Your task to perform on an android device: Open Chrome and go to settings Image 0: 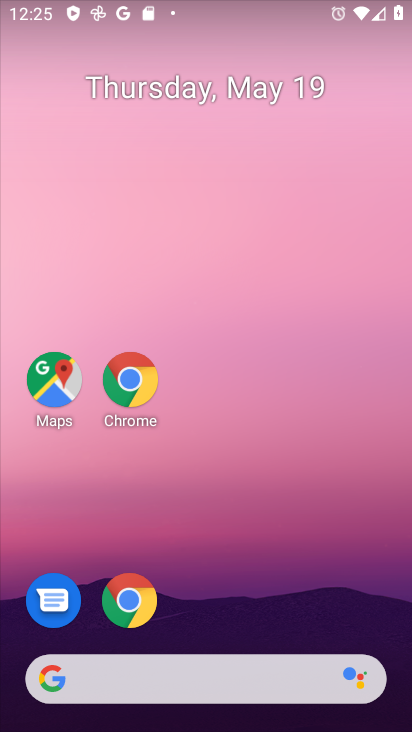
Step 0: drag from (301, 622) to (202, 132)
Your task to perform on an android device: Open Chrome and go to settings Image 1: 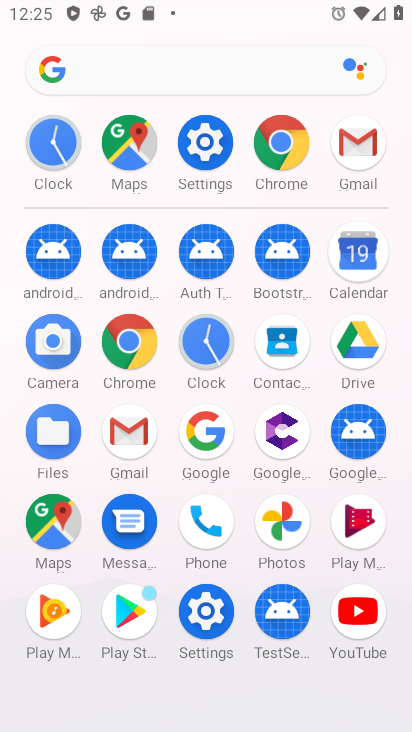
Step 1: click (197, 154)
Your task to perform on an android device: Open Chrome and go to settings Image 2: 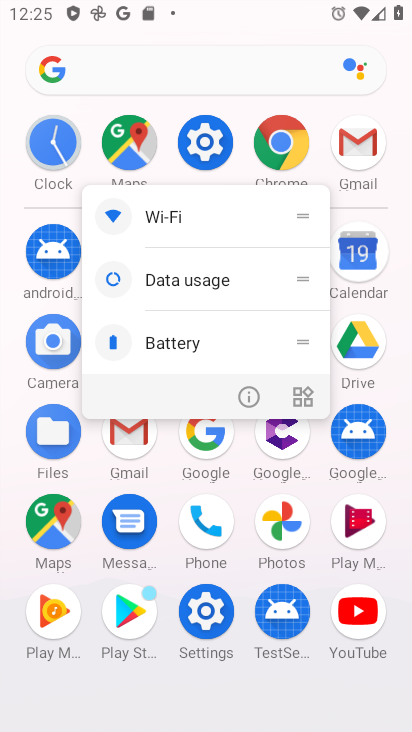
Step 2: click (208, 142)
Your task to perform on an android device: Open Chrome and go to settings Image 3: 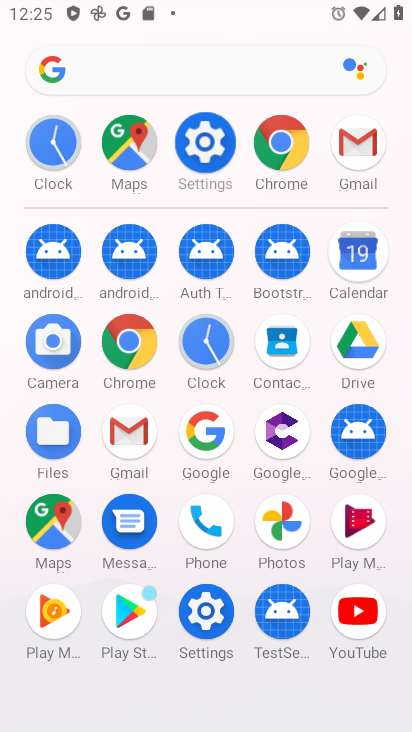
Step 3: click (208, 142)
Your task to perform on an android device: Open Chrome and go to settings Image 4: 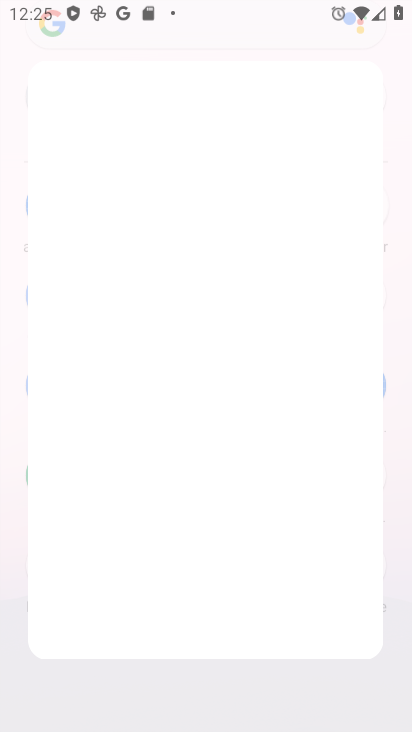
Step 4: click (209, 142)
Your task to perform on an android device: Open Chrome and go to settings Image 5: 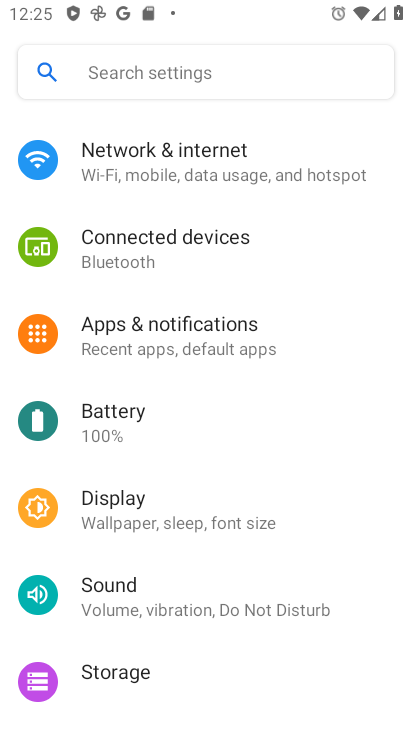
Step 5: click (210, 143)
Your task to perform on an android device: Open Chrome and go to settings Image 6: 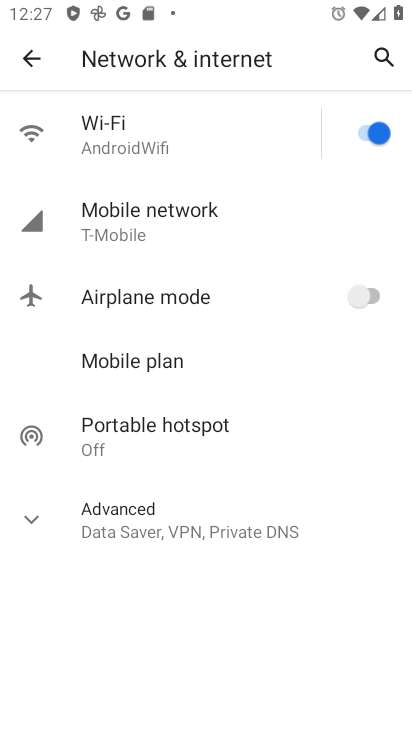
Step 6: click (26, 57)
Your task to perform on an android device: Open Chrome and go to settings Image 7: 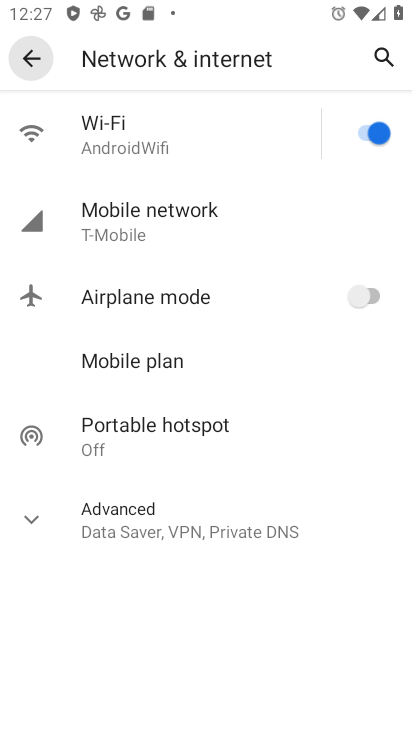
Step 7: click (26, 57)
Your task to perform on an android device: Open Chrome and go to settings Image 8: 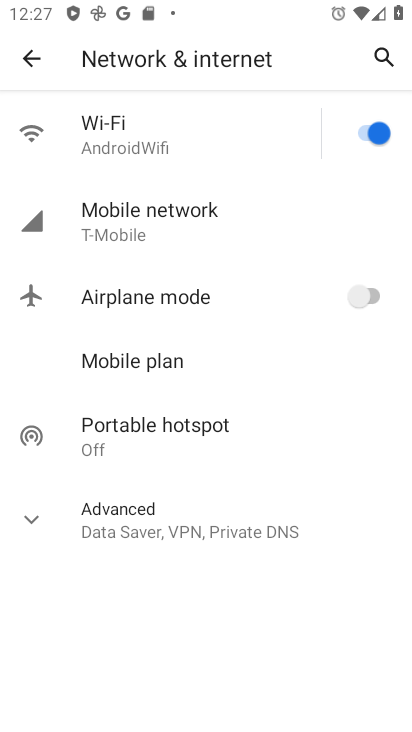
Step 8: click (24, 57)
Your task to perform on an android device: Open Chrome and go to settings Image 9: 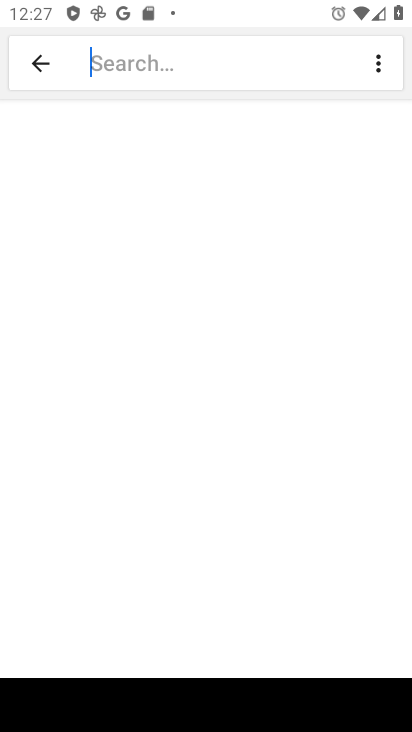
Step 9: click (38, 69)
Your task to perform on an android device: Open Chrome and go to settings Image 10: 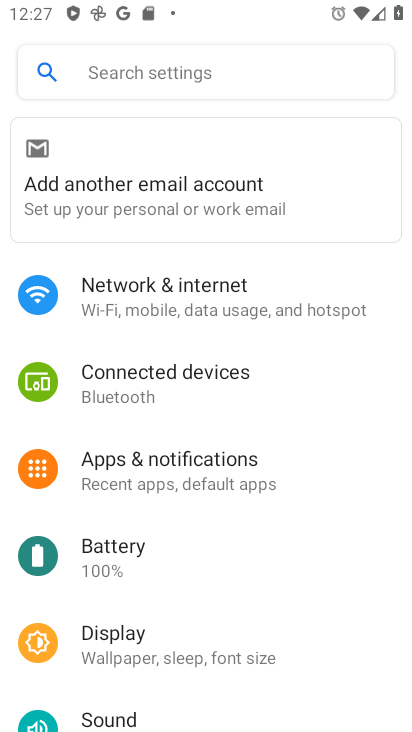
Step 10: press back button
Your task to perform on an android device: Open Chrome and go to settings Image 11: 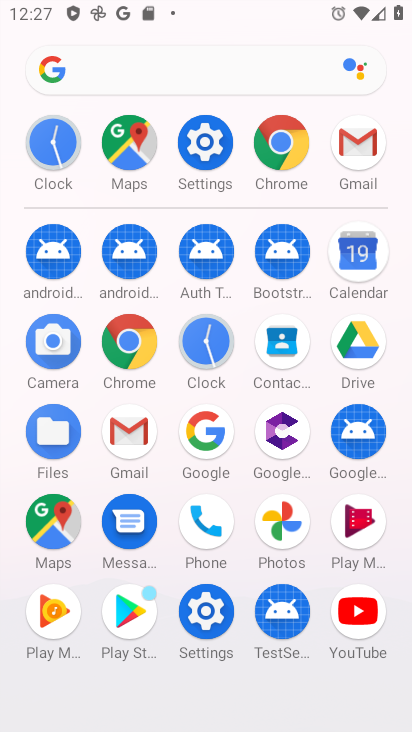
Step 11: click (271, 143)
Your task to perform on an android device: Open Chrome and go to settings Image 12: 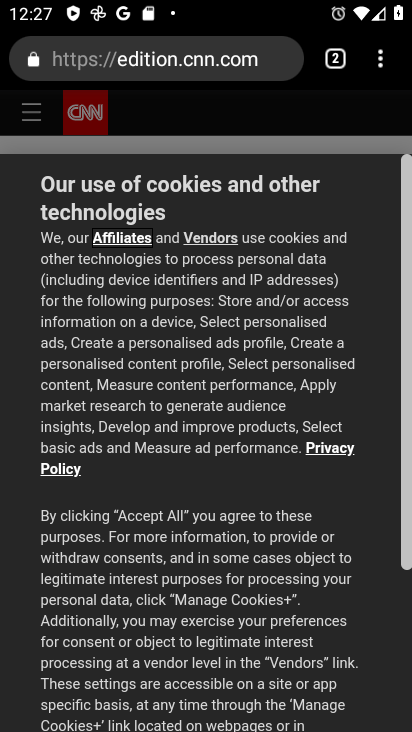
Step 12: click (381, 62)
Your task to perform on an android device: Open Chrome and go to settings Image 13: 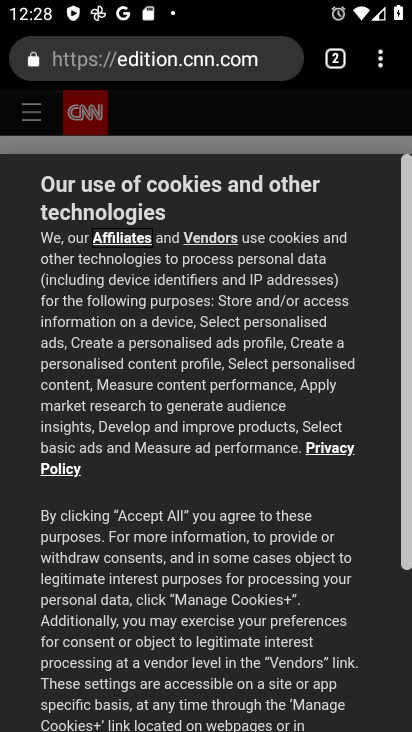
Step 13: press back button
Your task to perform on an android device: Open Chrome and go to settings Image 14: 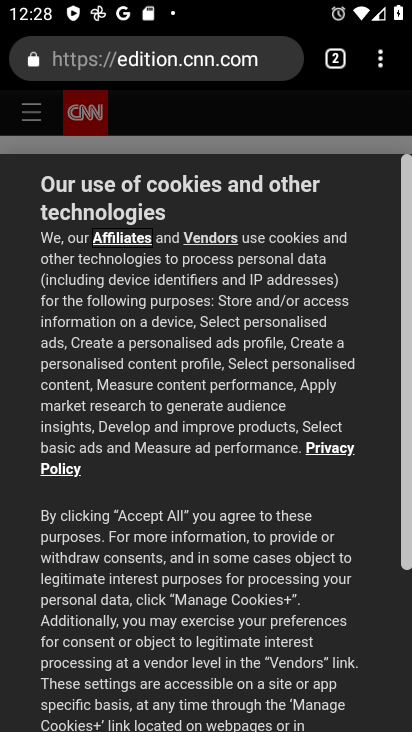
Step 14: press back button
Your task to perform on an android device: Open Chrome and go to settings Image 15: 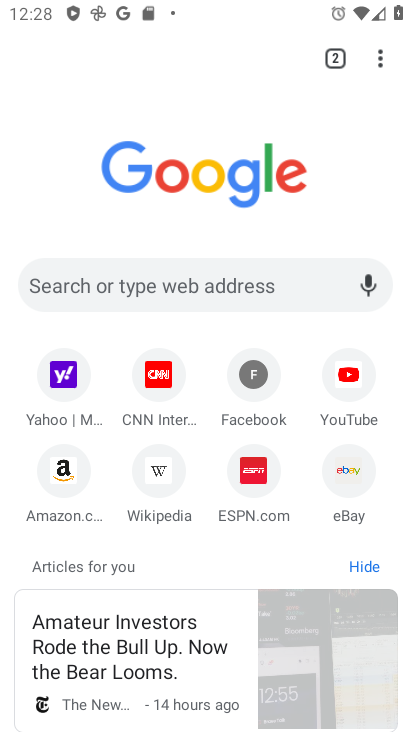
Step 15: press back button
Your task to perform on an android device: Open Chrome and go to settings Image 16: 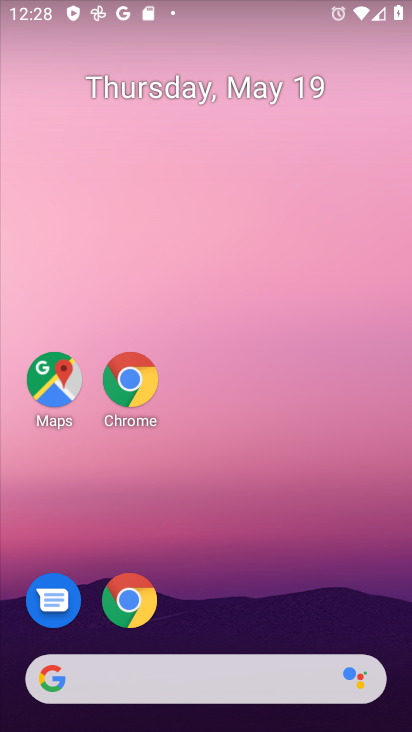
Step 16: drag from (252, 569) to (197, 64)
Your task to perform on an android device: Open Chrome and go to settings Image 17: 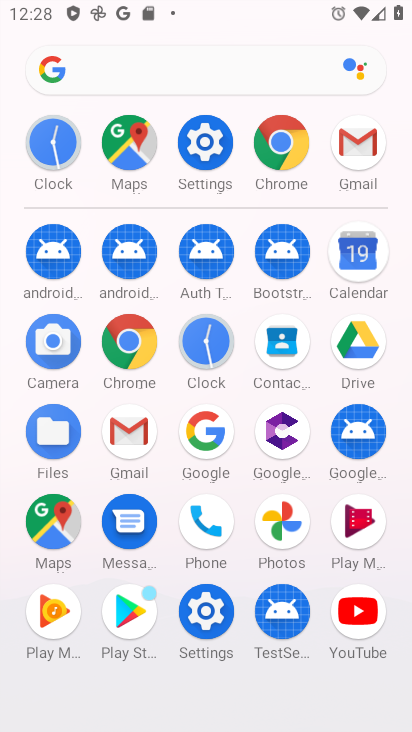
Step 17: click (281, 152)
Your task to perform on an android device: Open Chrome and go to settings Image 18: 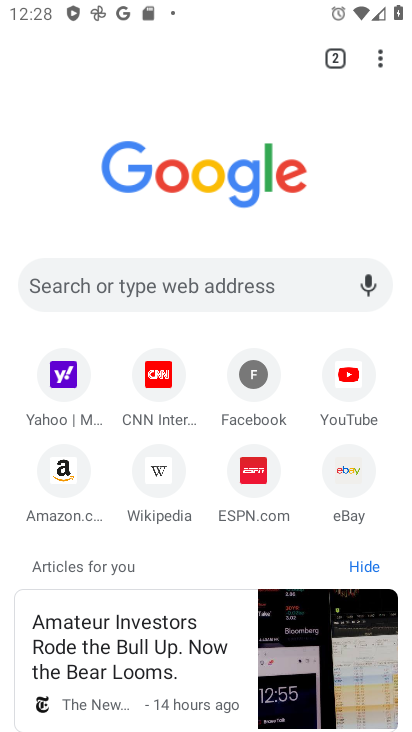
Step 18: click (375, 58)
Your task to perform on an android device: Open Chrome and go to settings Image 19: 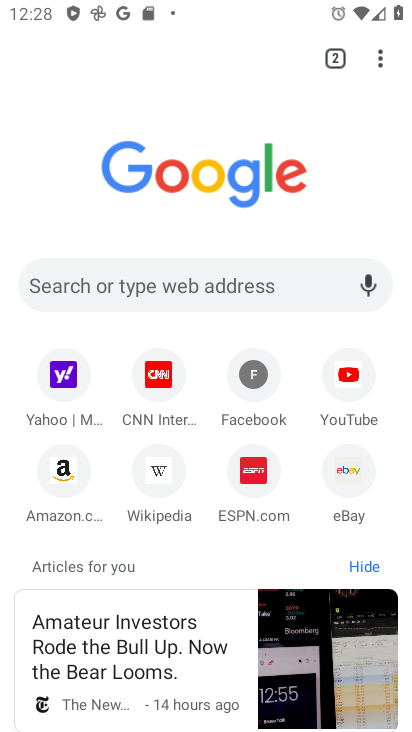
Step 19: drag from (374, 59) to (184, 488)
Your task to perform on an android device: Open Chrome and go to settings Image 20: 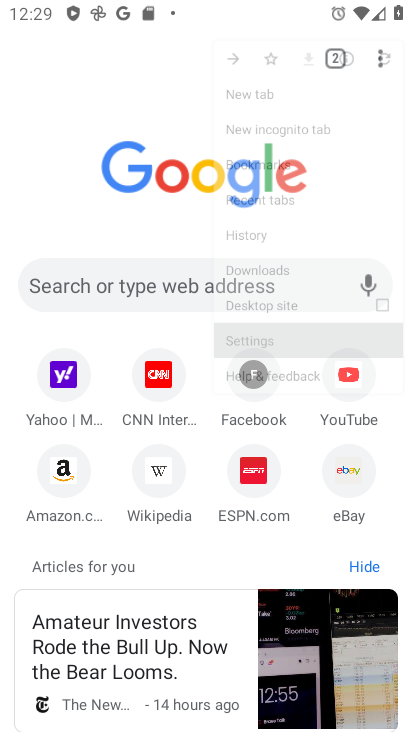
Step 20: click (184, 492)
Your task to perform on an android device: Open Chrome and go to settings Image 21: 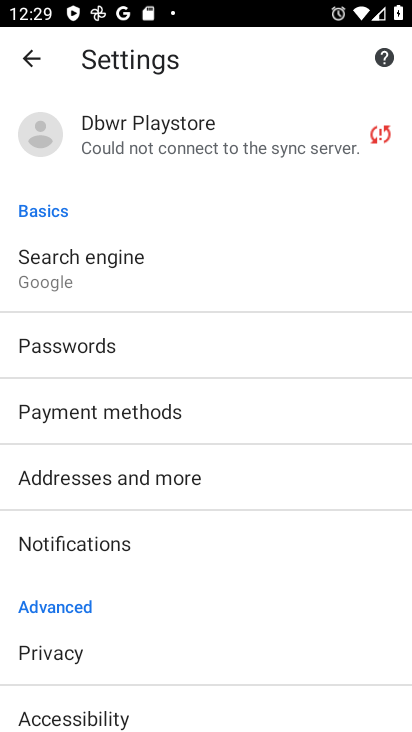
Step 21: drag from (135, 502) to (86, 182)
Your task to perform on an android device: Open Chrome and go to settings Image 22: 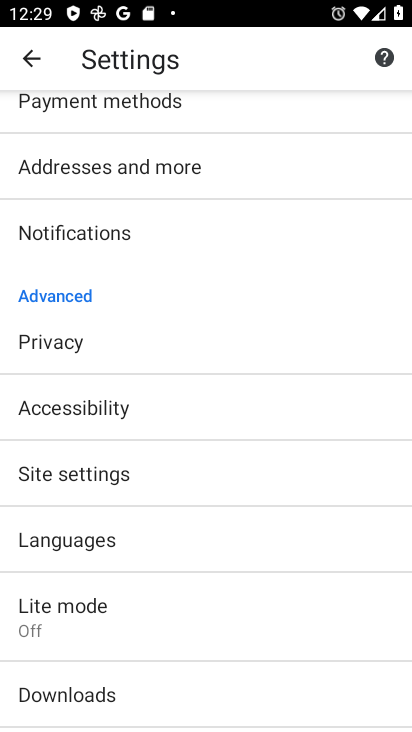
Step 22: click (67, 470)
Your task to perform on an android device: Open Chrome and go to settings Image 23: 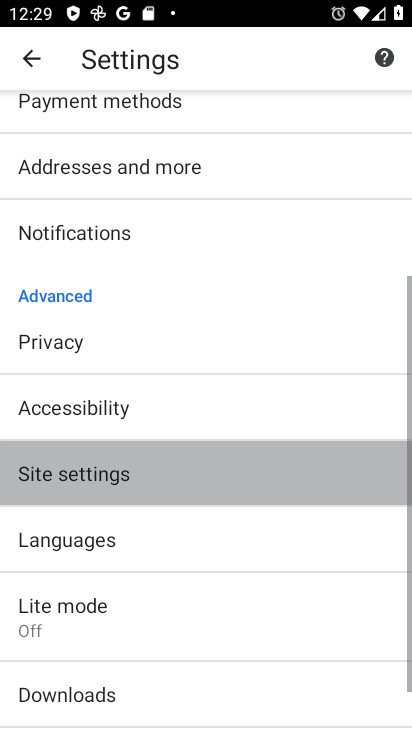
Step 23: click (68, 471)
Your task to perform on an android device: Open Chrome and go to settings Image 24: 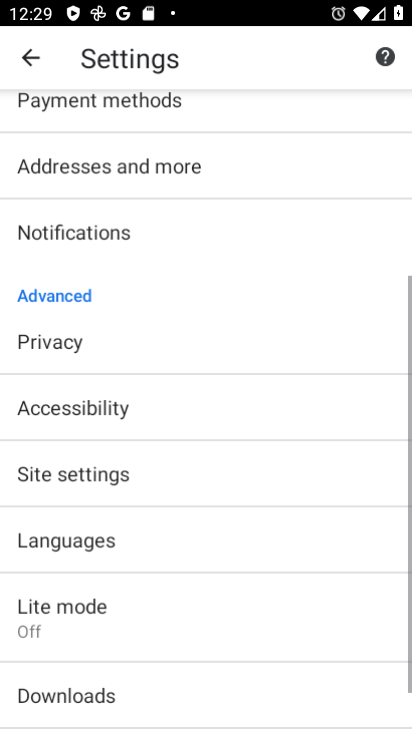
Step 24: click (68, 471)
Your task to perform on an android device: Open Chrome and go to settings Image 25: 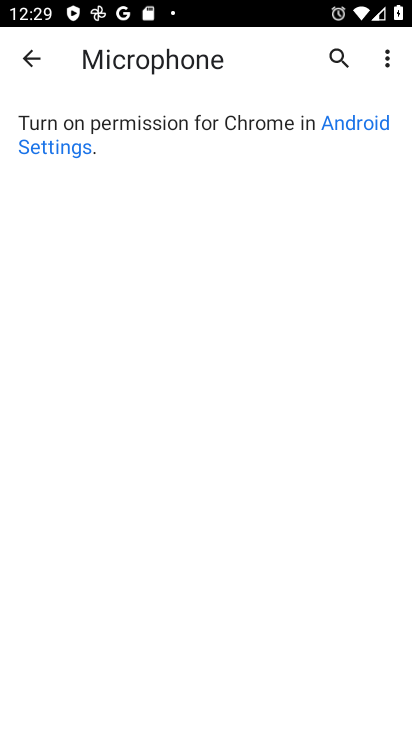
Step 25: click (33, 60)
Your task to perform on an android device: Open Chrome and go to settings Image 26: 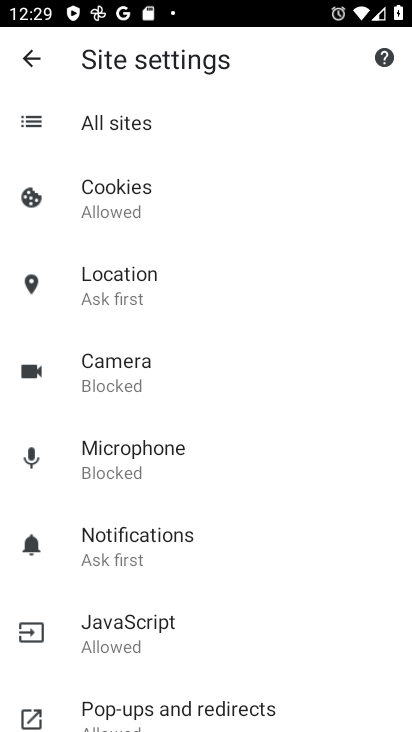
Step 26: task complete